Your task to perform on an android device: Go to Maps Image 0: 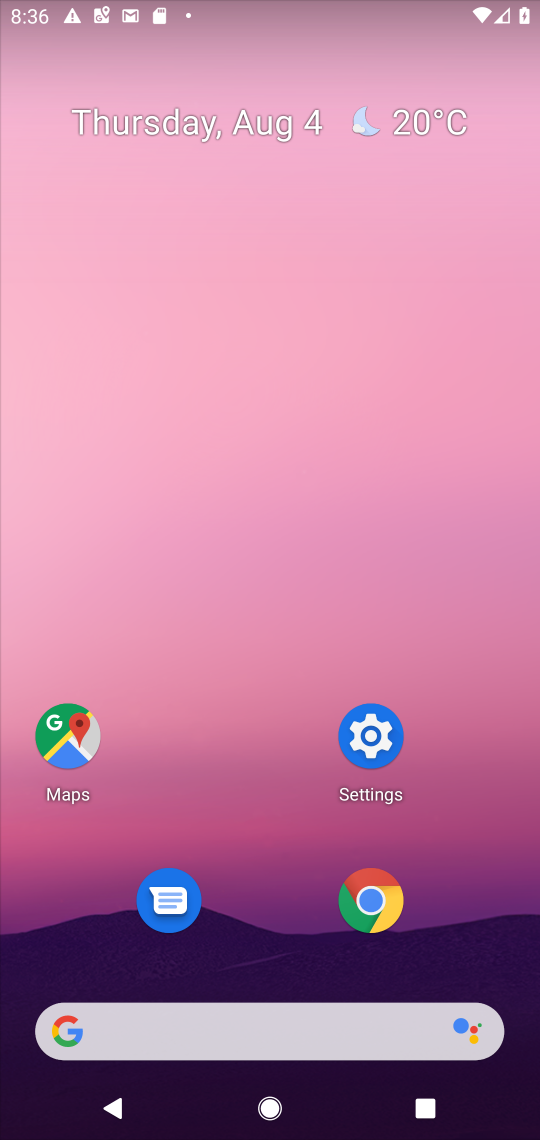
Step 0: press home button
Your task to perform on an android device: Go to Maps Image 1: 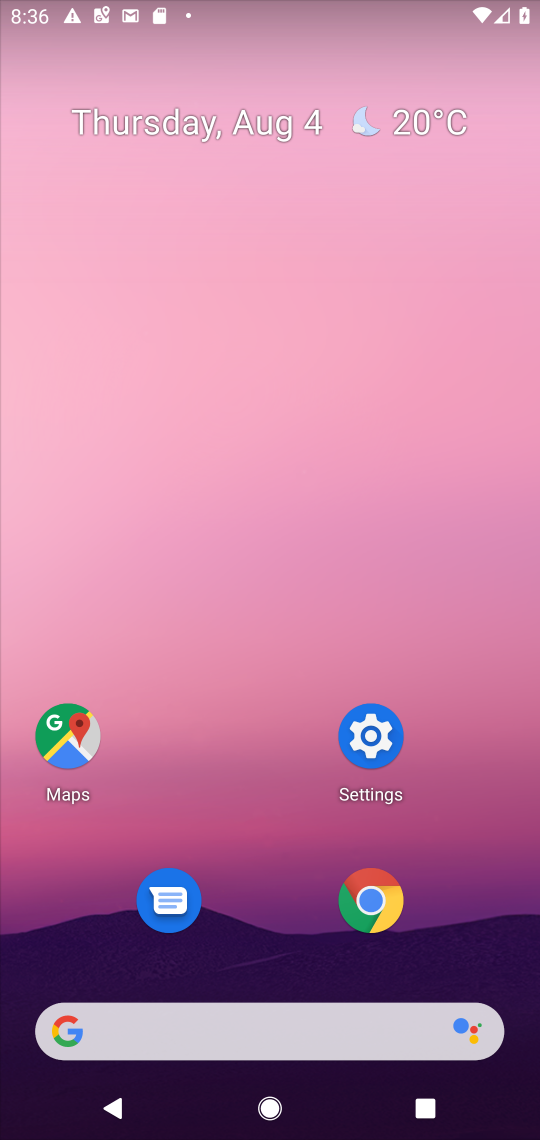
Step 1: click (60, 736)
Your task to perform on an android device: Go to Maps Image 2: 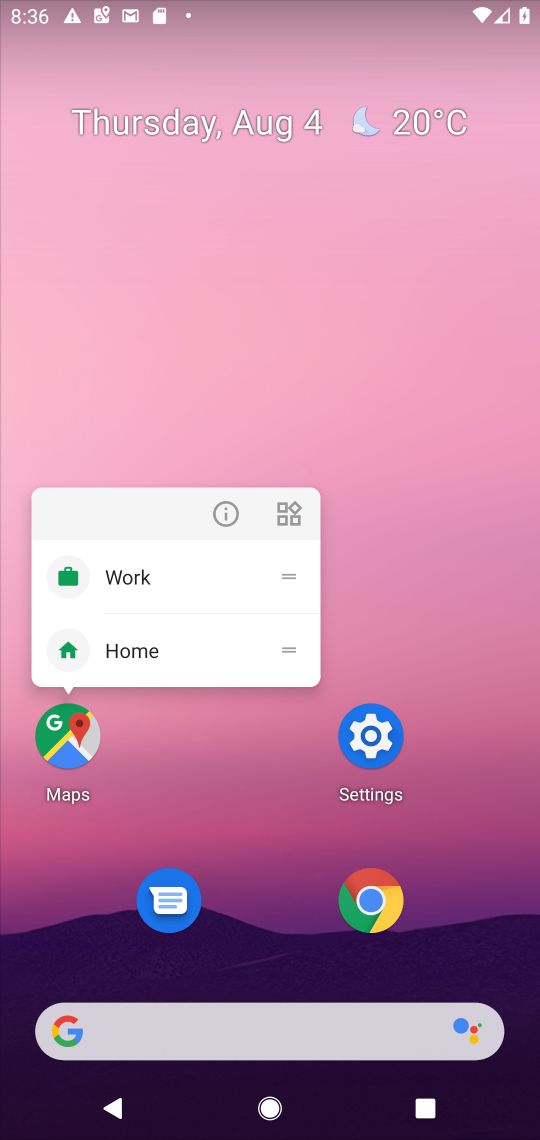
Step 2: click (79, 750)
Your task to perform on an android device: Go to Maps Image 3: 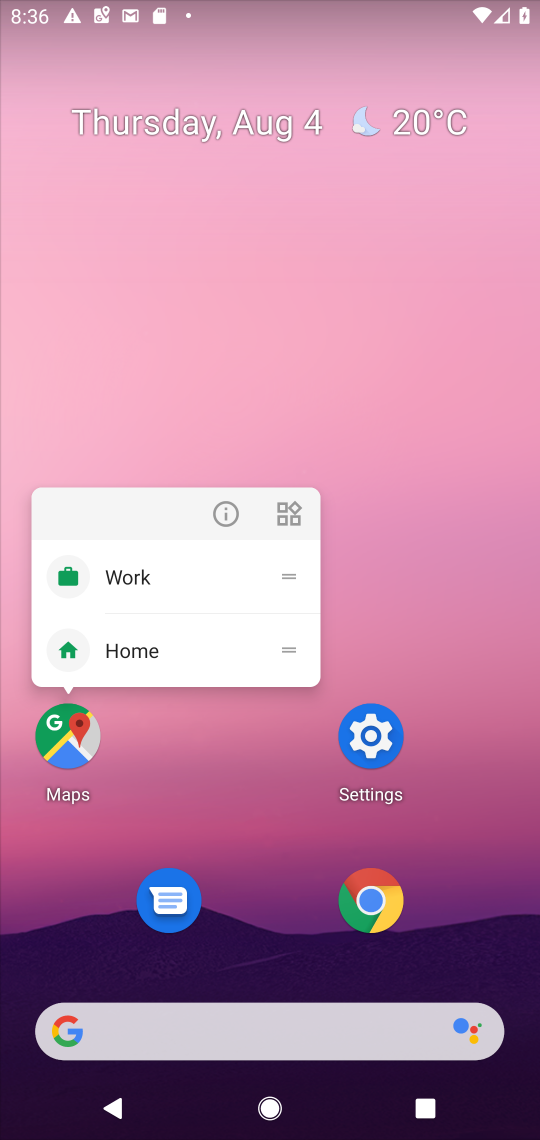
Step 3: click (70, 737)
Your task to perform on an android device: Go to Maps Image 4: 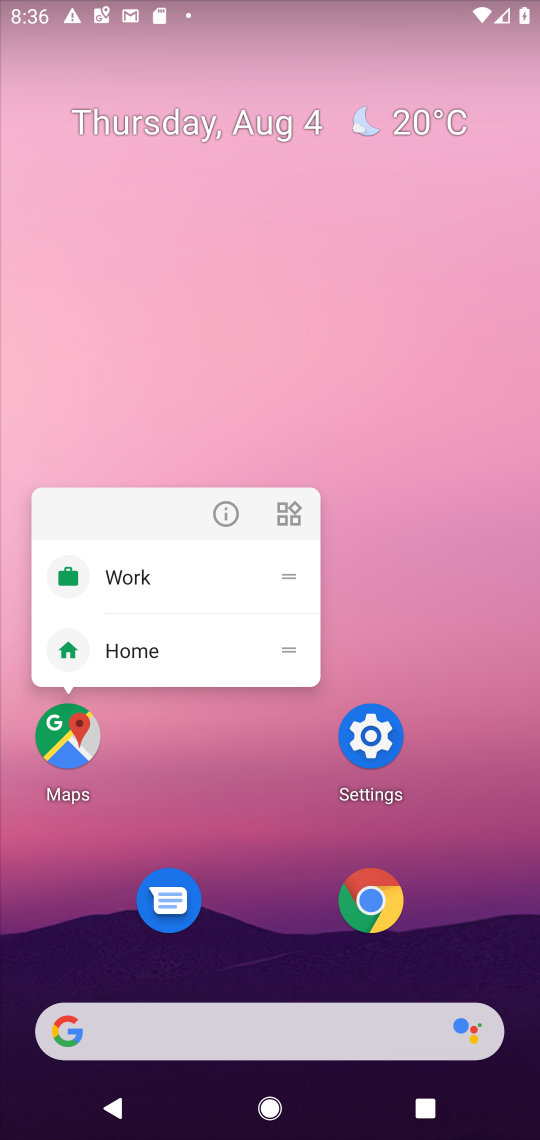
Step 4: click (61, 734)
Your task to perform on an android device: Go to Maps Image 5: 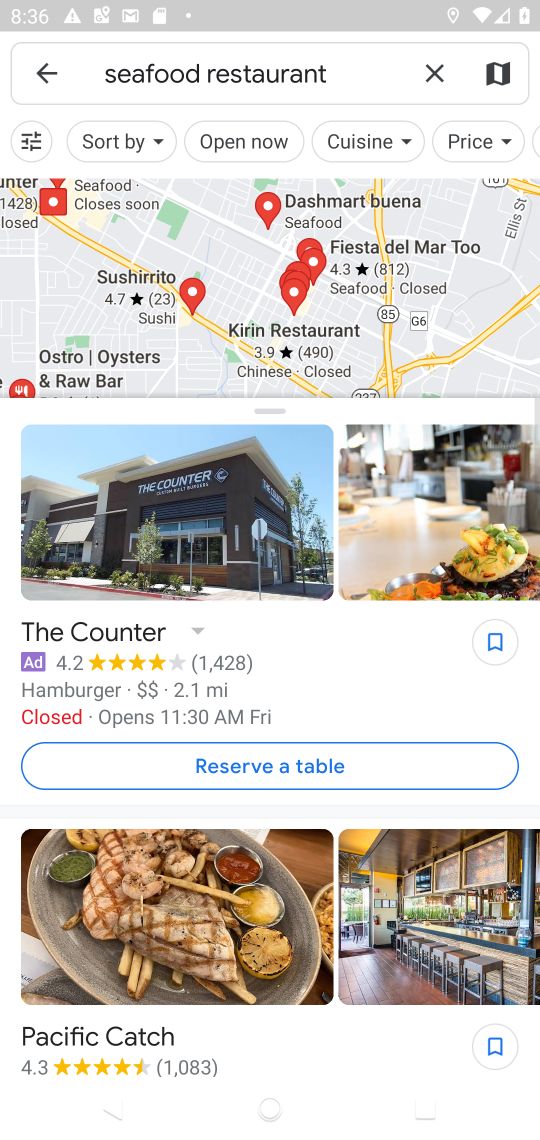
Step 5: click (437, 74)
Your task to perform on an android device: Go to Maps Image 6: 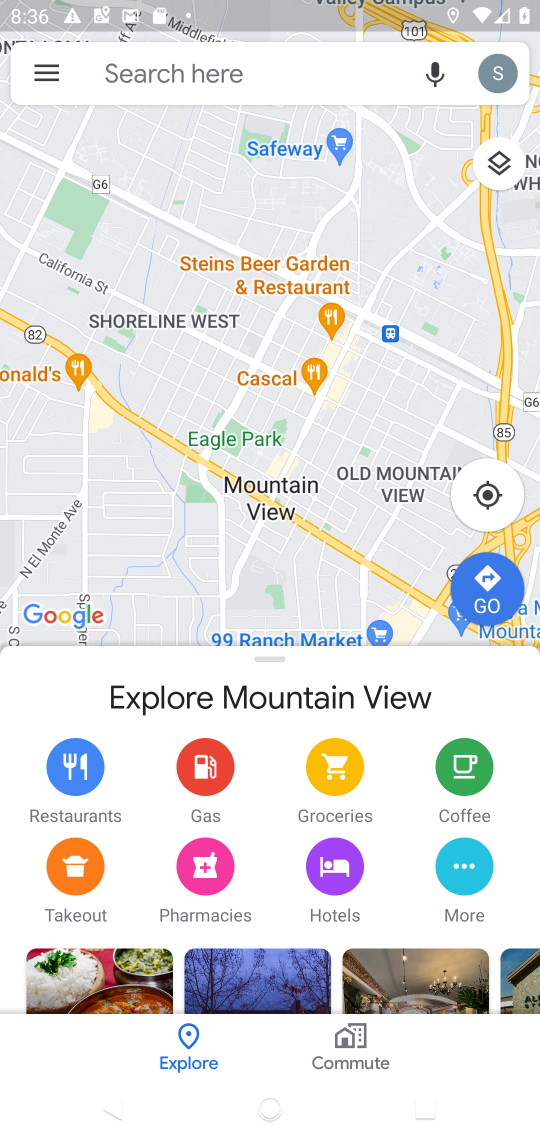
Step 6: task complete